Your task to perform on an android device: turn on airplane mode Image 0: 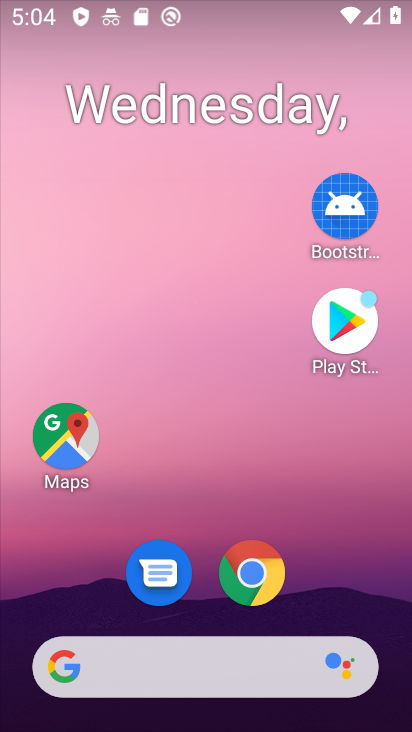
Step 0: drag from (304, 418) to (238, 11)
Your task to perform on an android device: turn on airplane mode Image 1: 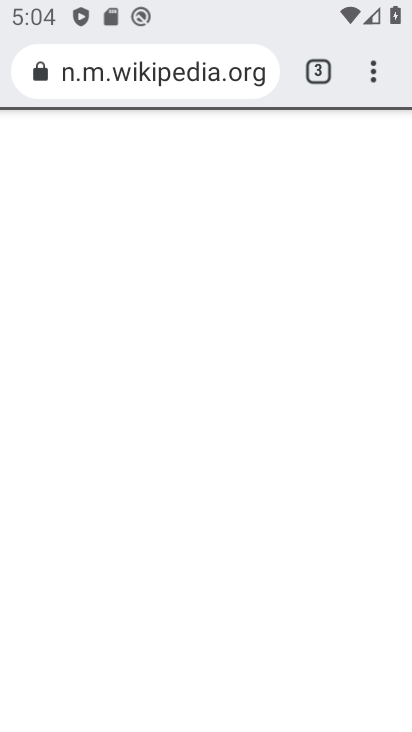
Step 1: press home button
Your task to perform on an android device: turn on airplane mode Image 2: 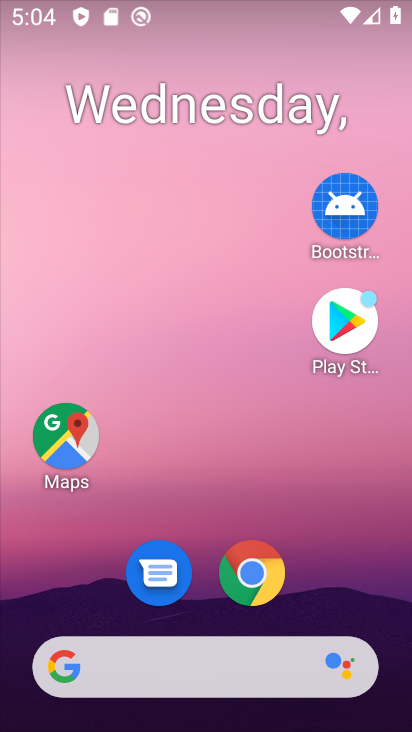
Step 2: drag from (317, 605) to (220, 111)
Your task to perform on an android device: turn on airplane mode Image 3: 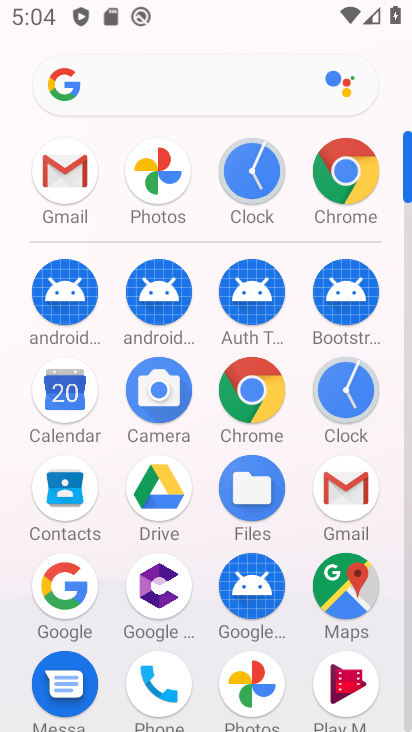
Step 3: drag from (323, 5) to (304, 635)
Your task to perform on an android device: turn on airplane mode Image 4: 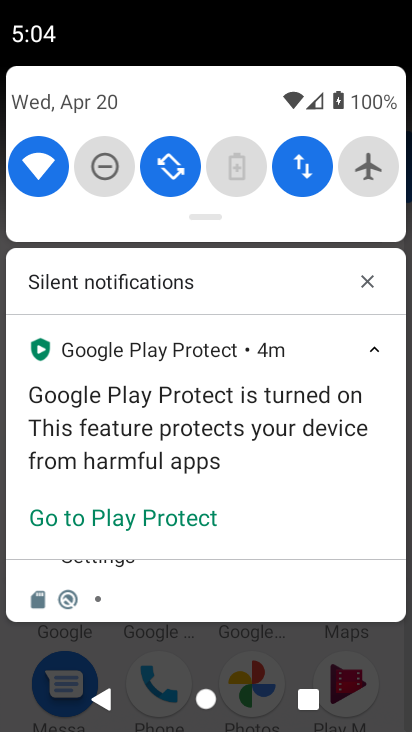
Step 4: click (377, 169)
Your task to perform on an android device: turn on airplane mode Image 5: 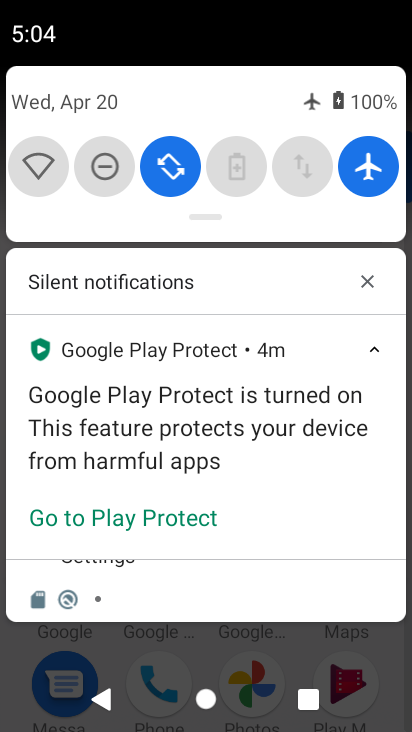
Step 5: task complete